Your task to perform on an android device: What's on my calendar tomorrow? Image 0: 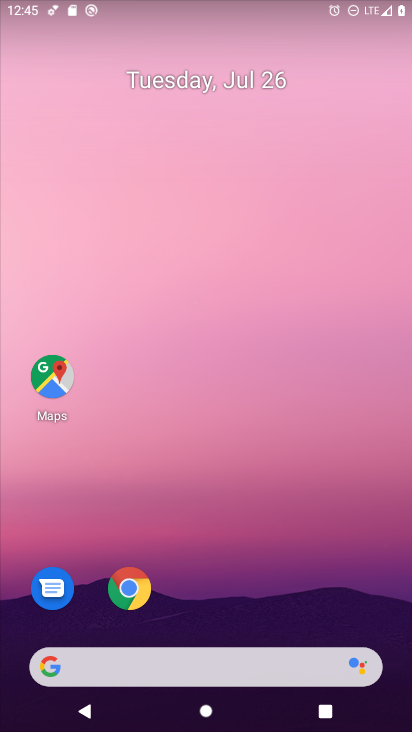
Step 0: drag from (220, 617) to (122, 96)
Your task to perform on an android device: What's on my calendar tomorrow? Image 1: 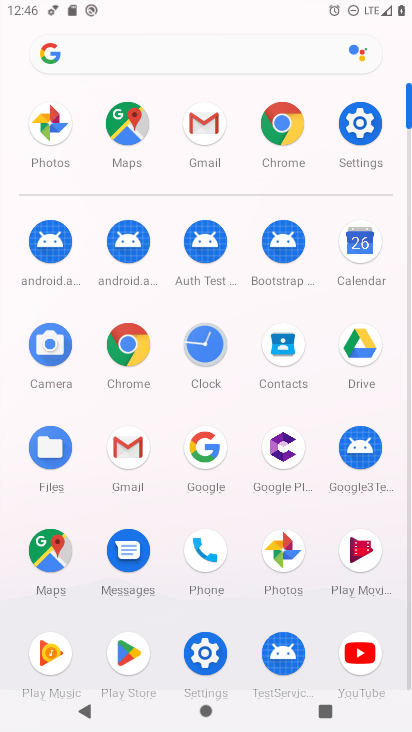
Step 1: click (375, 271)
Your task to perform on an android device: What's on my calendar tomorrow? Image 2: 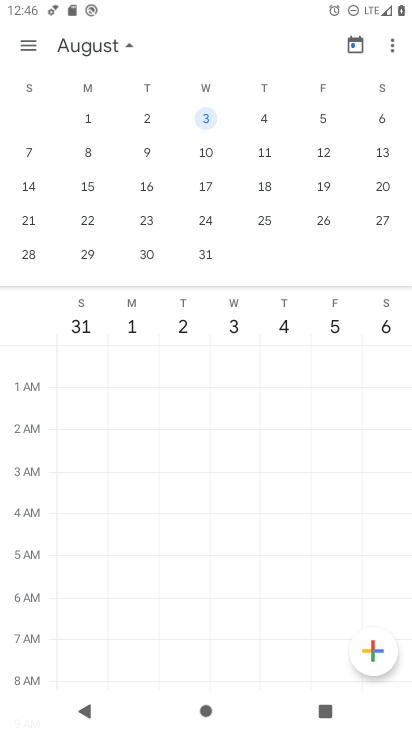
Step 2: click (26, 46)
Your task to perform on an android device: What's on my calendar tomorrow? Image 3: 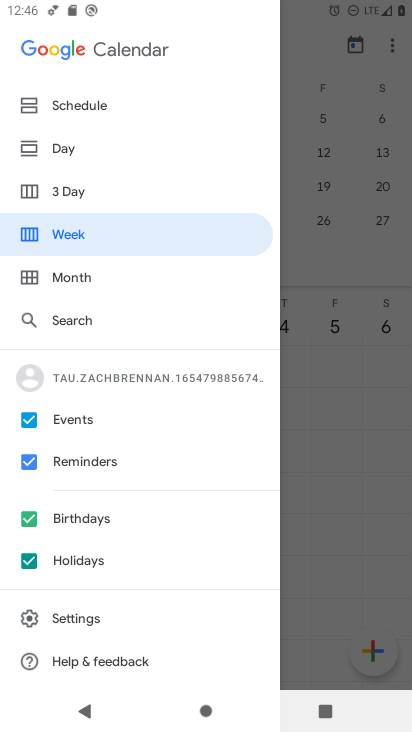
Step 3: click (74, 102)
Your task to perform on an android device: What's on my calendar tomorrow? Image 4: 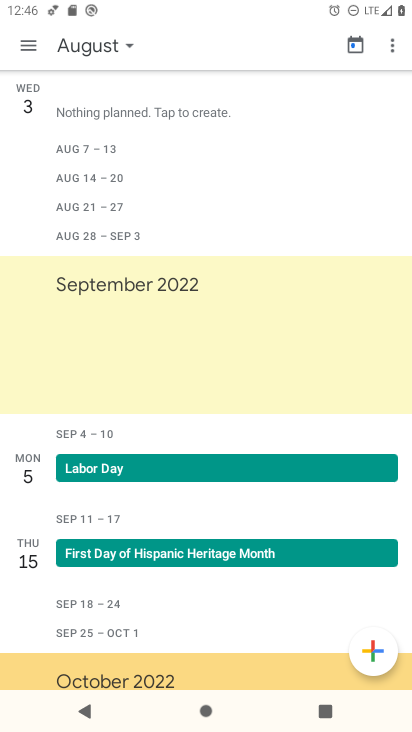
Step 4: click (129, 47)
Your task to perform on an android device: What's on my calendar tomorrow? Image 5: 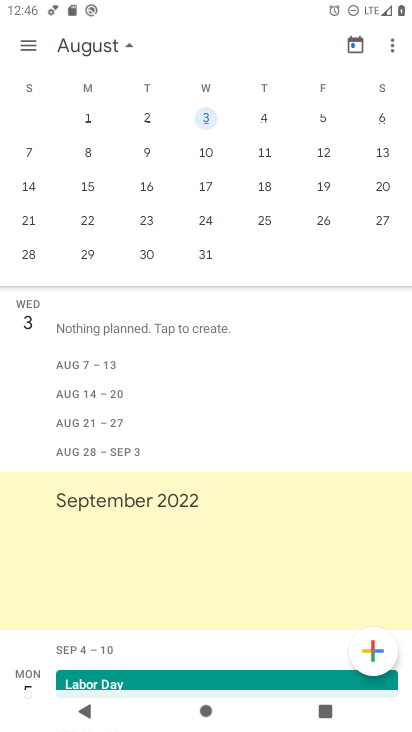
Step 5: drag from (50, 137) to (403, 206)
Your task to perform on an android device: What's on my calendar tomorrow? Image 6: 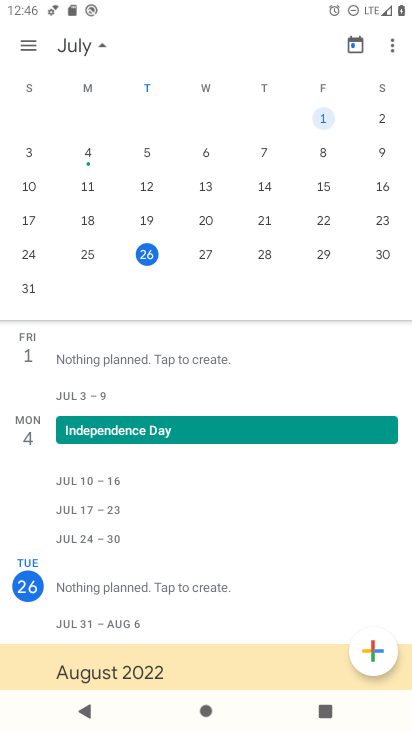
Step 6: click (218, 257)
Your task to perform on an android device: What's on my calendar tomorrow? Image 7: 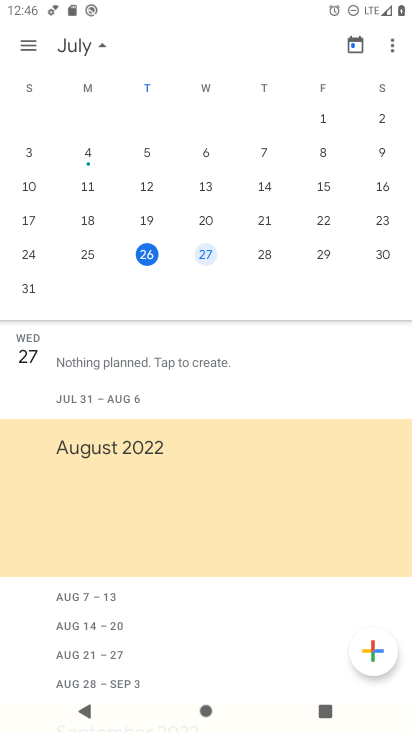
Step 7: task complete